Your task to perform on an android device: set an alarm Image 0: 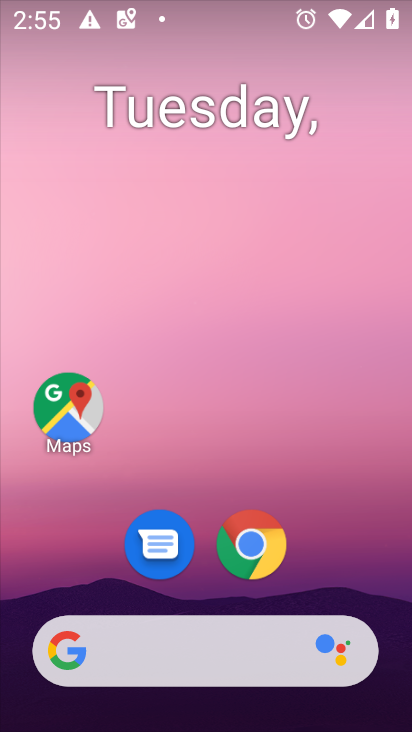
Step 0: drag from (364, 588) to (350, 128)
Your task to perform on an android device: set an alarm Image 1: 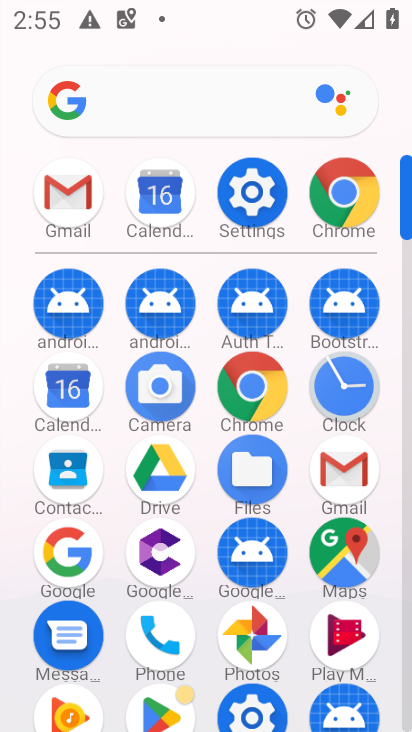
Step 1: click (348, 371)
Your task to perform on an android device: set an alarm Image 2: 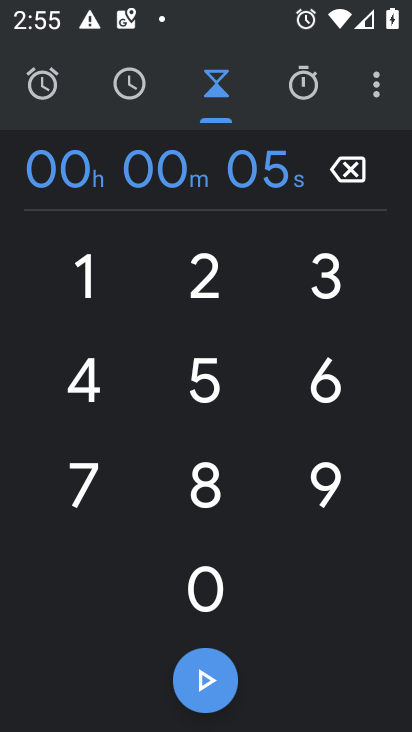
Step 2: click (64, 69)
Your task to perform on an android device: set an alarm Image 3: 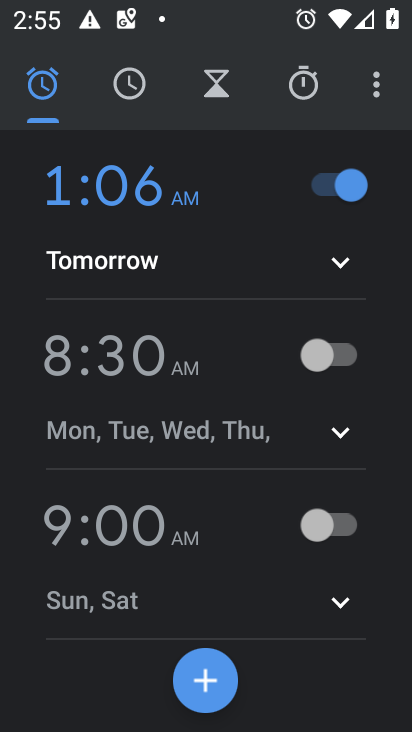
Step 3: click (216, 681)
Your task to perform on an android device: set an alarm Image 4: 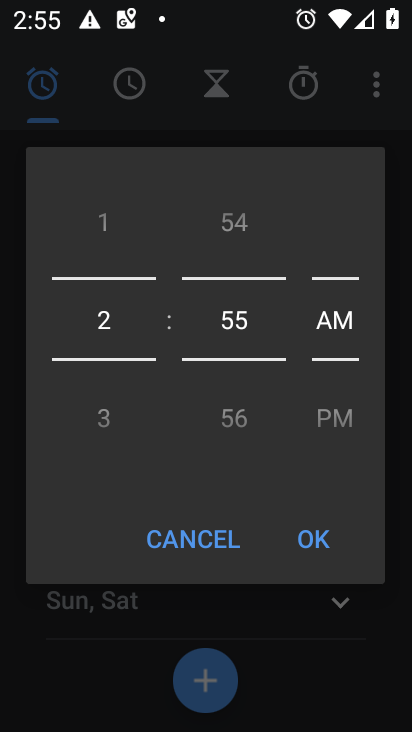
Step 4: click (324, 538)
Your task to perform on an android device: set an alarm Image 5: 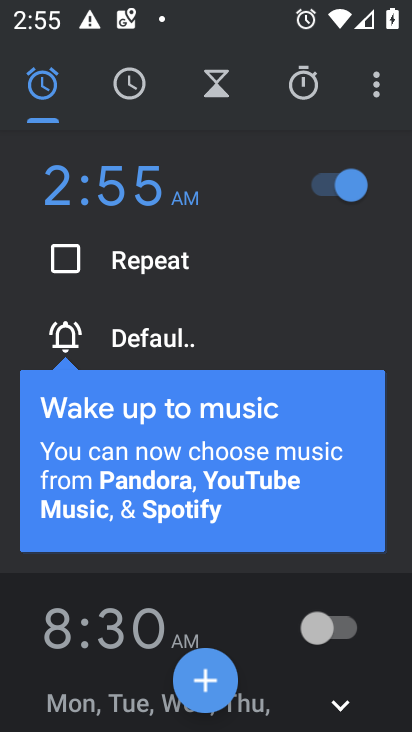
Step 5: task complete